Your task to perform on an android device: Add apple airpods pro to the cart on ebay.com Image 0: 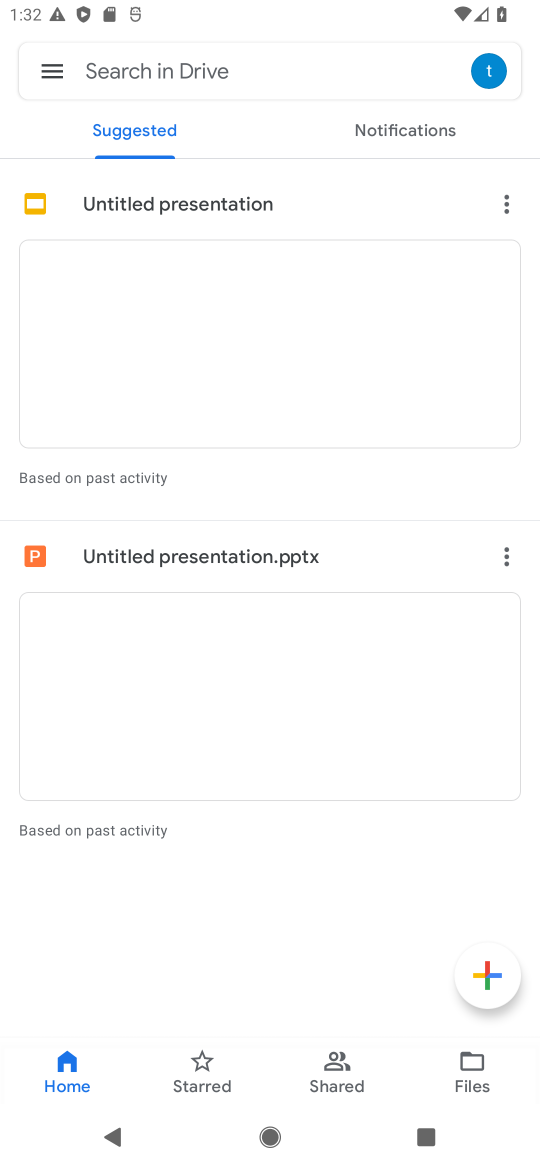
Step 0: press home button
Your task to perform on an android device: Add apple airpods pro to the cart on ebay.com Image 1: 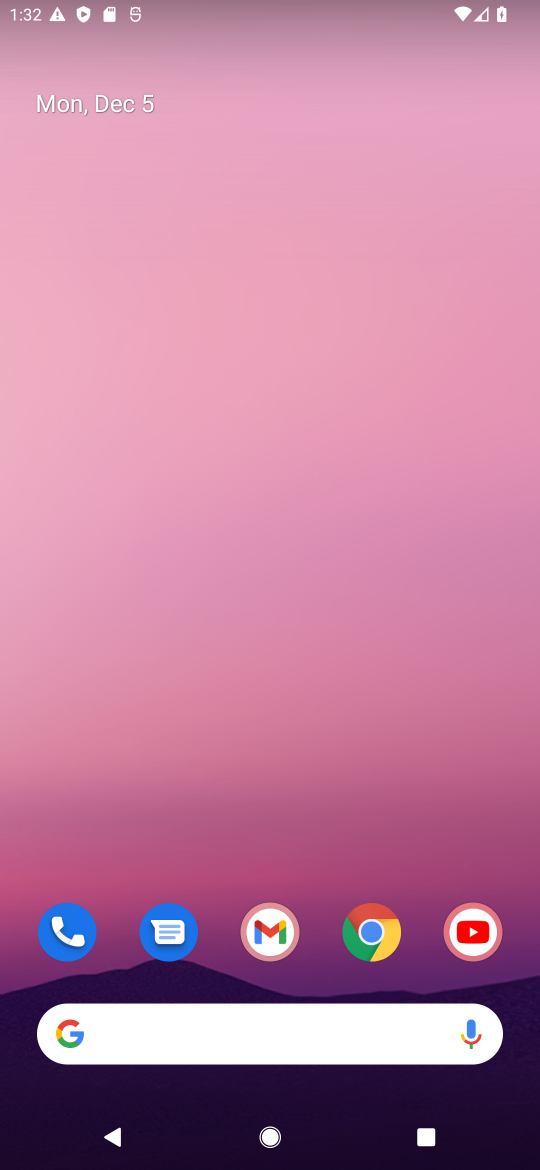
Step 1: click (368, 937)
Your task to perform on an android device: Add apple airpods pro to the cart on ebay.com Image 2: 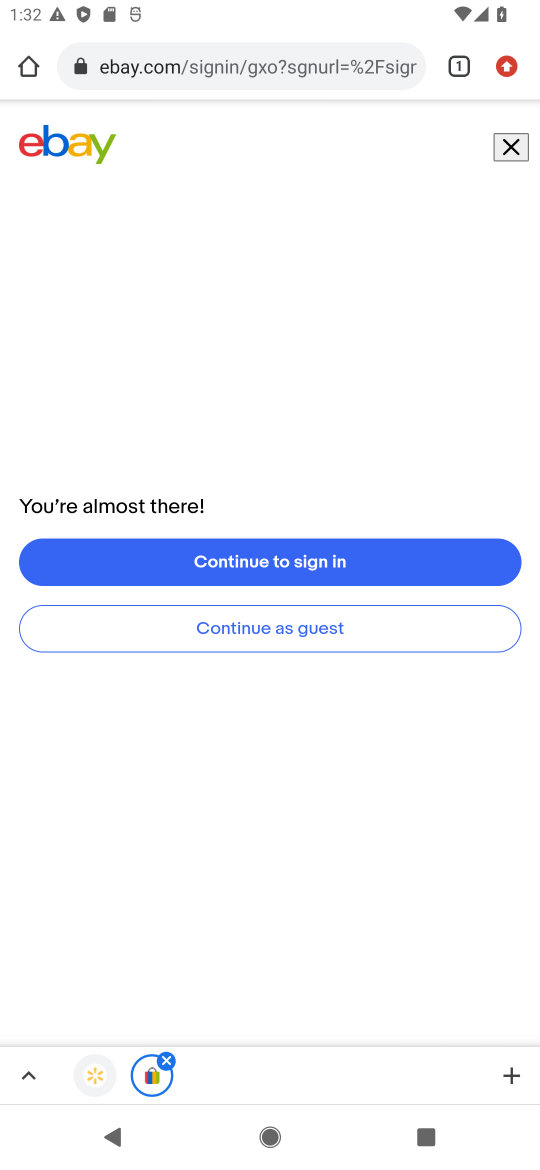
Step 2: click (49, 140)
Your task to perform on an android device: Add apple airpods pro to the cart on ebay.com Image 3: 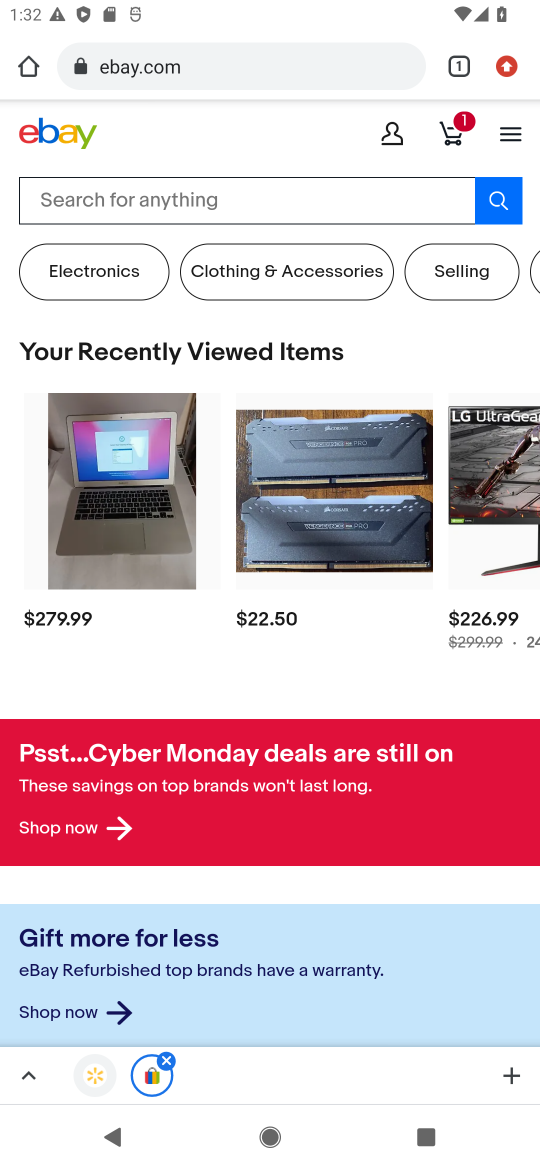
Step 3: click (268, 196)
Your task to perform on an android device: Add apple airpods pro to the cart on ebay.com Image 4: 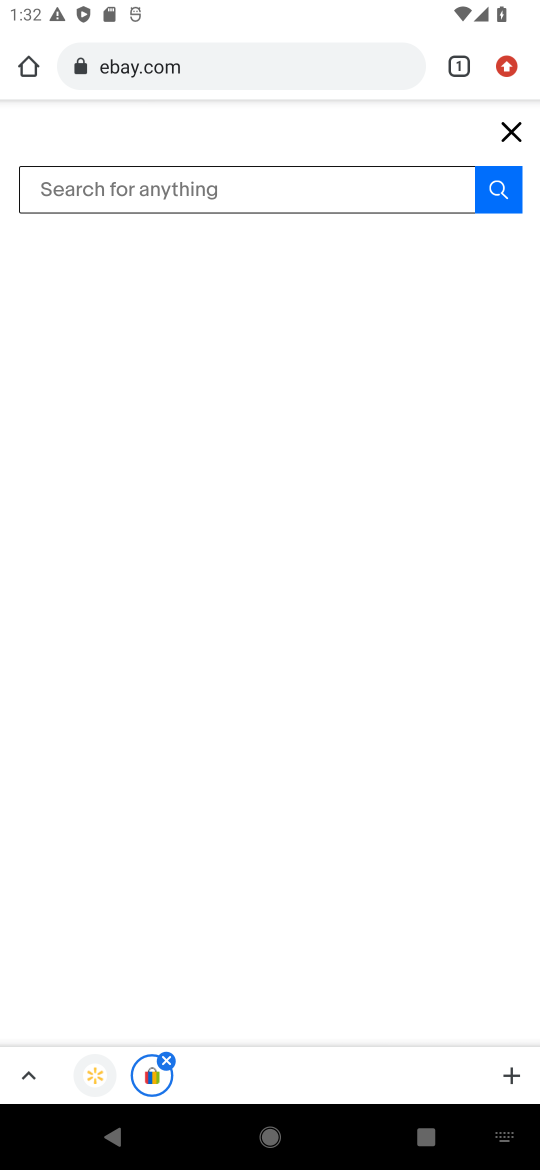
Step 4: type "apple airpods"
Your task to perform on an android device: Add apple airpods pro to the cart on ebay.com Image 5: 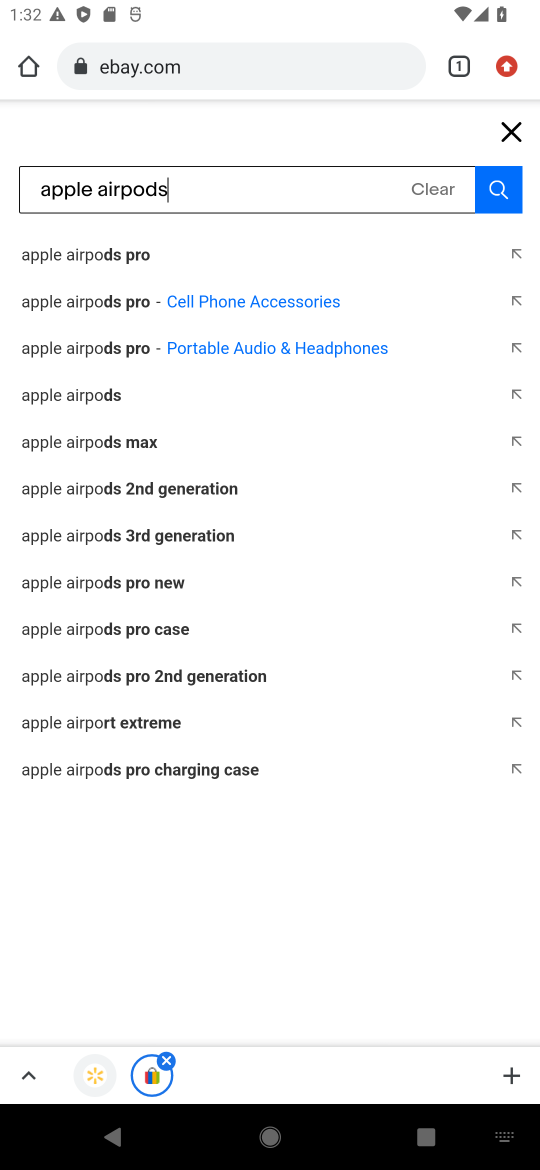
Step 5: click (68, 256)
Your task to perform on an android device: Add apple airpods pro to the cart on ebay.com Image 6: 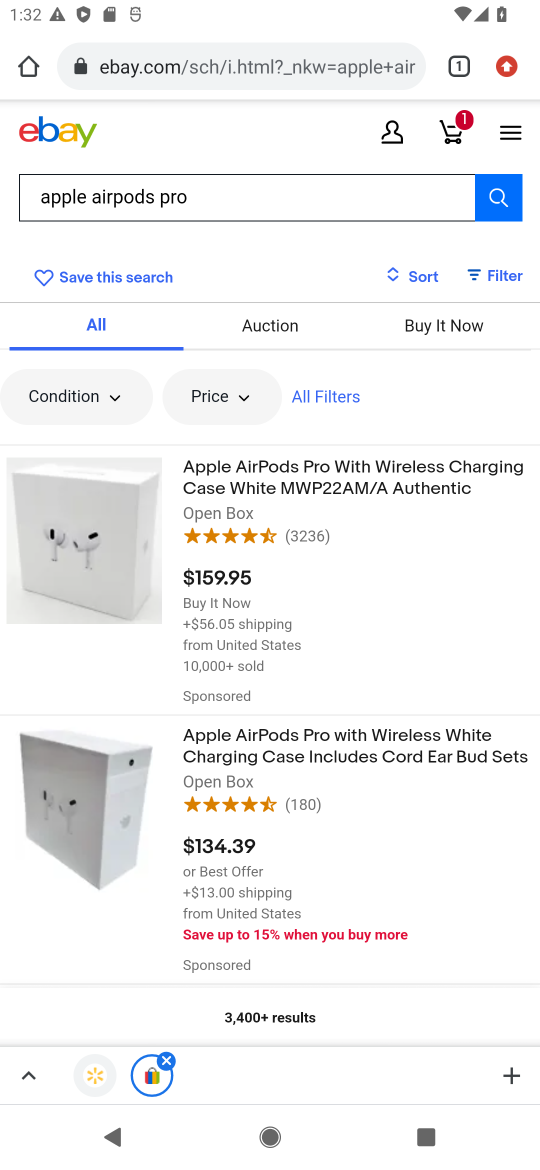
Step 6: click (262, 516)
Your task to perform on an android device: Add apple airpods pro to the cart on ebay.com Image 7: 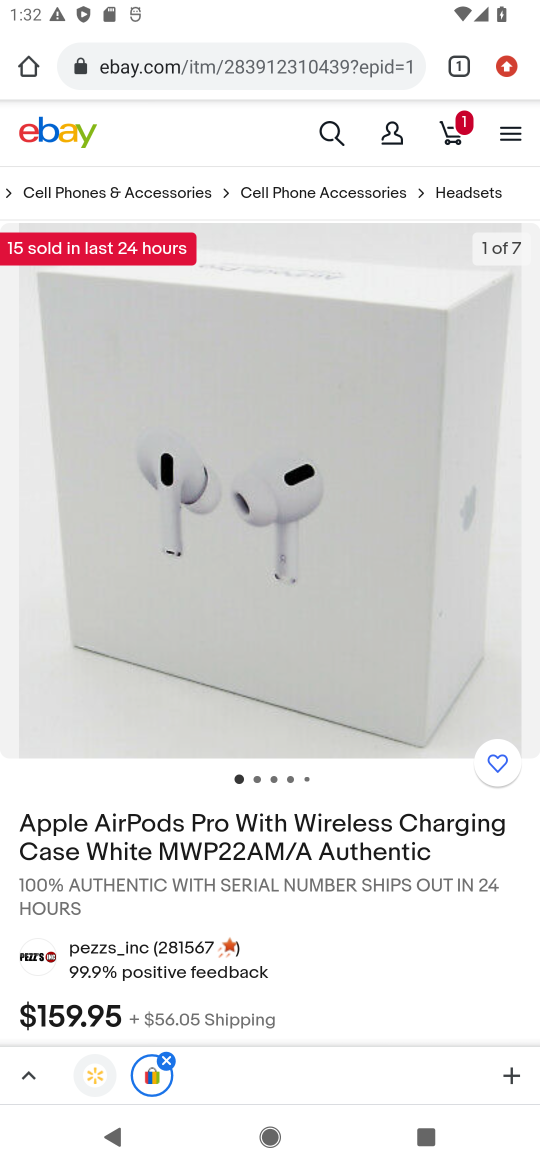
Step 7: drag from (299, 939) to (279, 466)
Your task to perform on an android device: Add apple airpods pro to the cart on ebay.com Image 8: 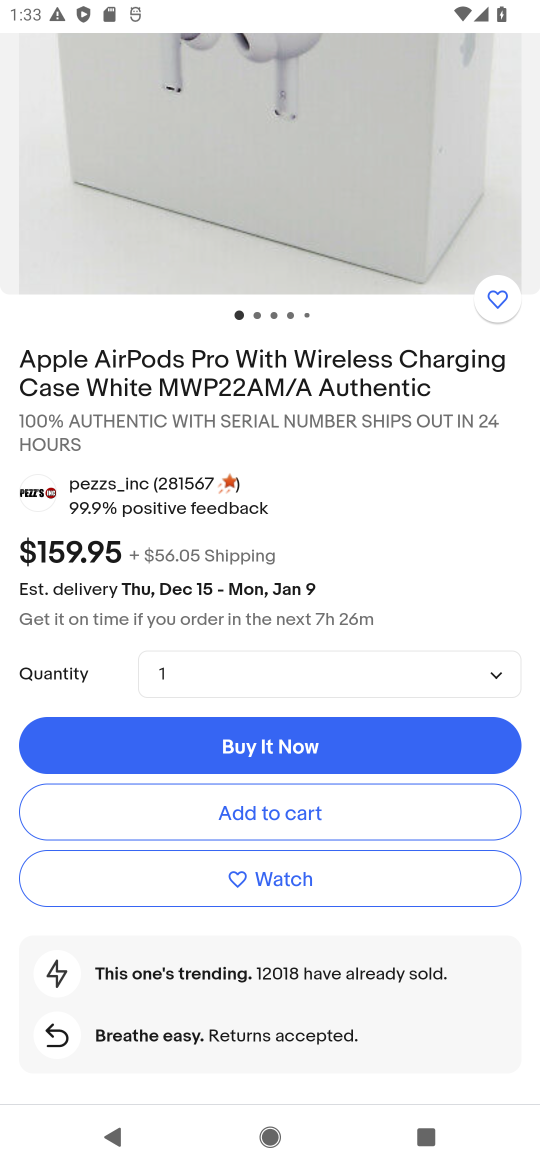
Step 8: click (279, 809)
Your task to perform on an android device: Add apple airpods pro to the cart on ebay.com Image 9: 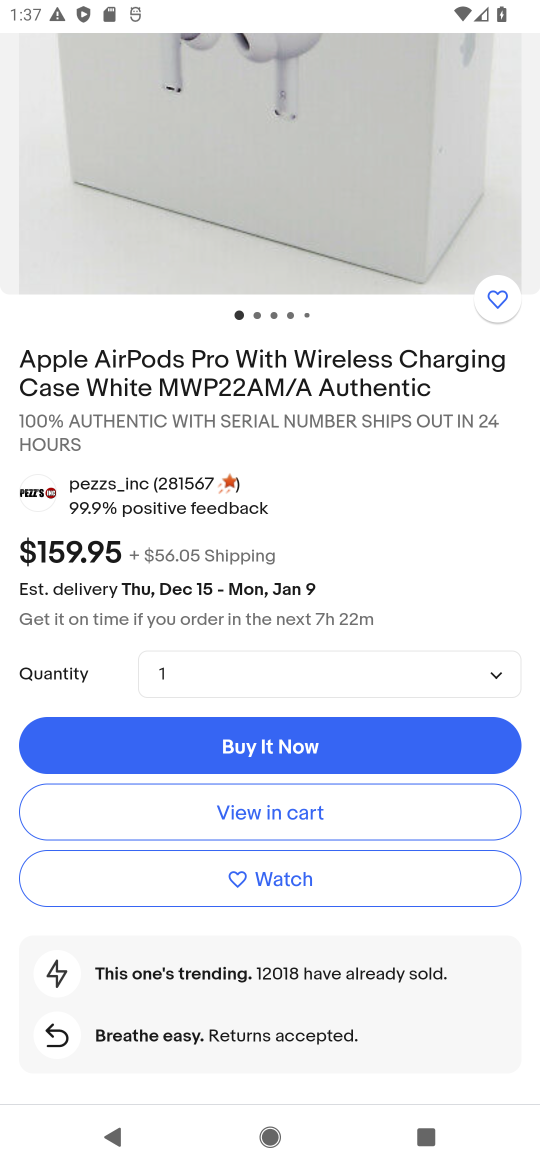
Step 9: task complete